Your task to perform on an android device: Open calendar and show me the third week of next month Image 0: 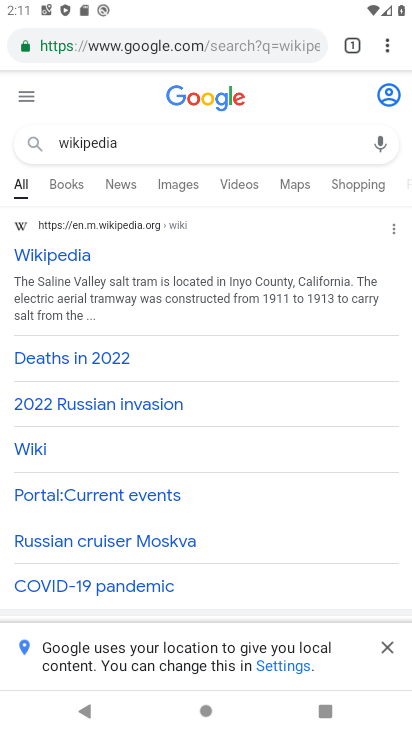
Step 0: press home button
Your task to perform on an android device: Open calendar and show me the third week of next month Image 1: 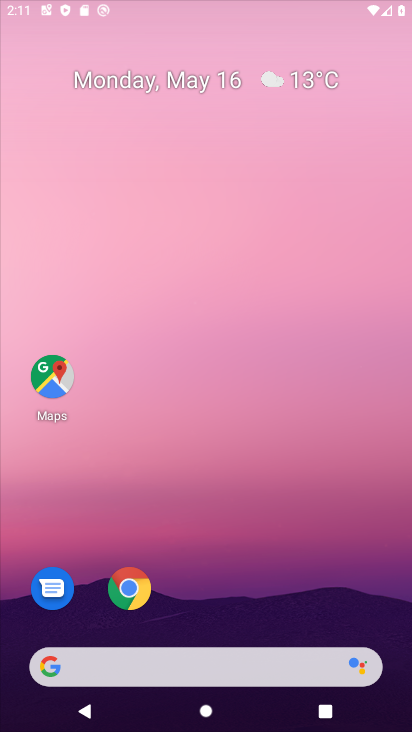
Step 1: drag from (169, 614) to (224, 53)
Your task to perform on an android device: Open calendar and show me the third week of next month Image 2: 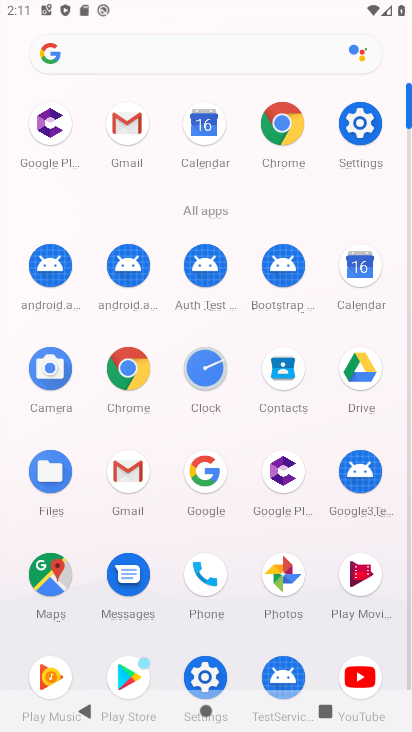
Step 2: click (351, 270)
Your task to perform on an android device: Open calendar and show me the third week of next month Image 3: 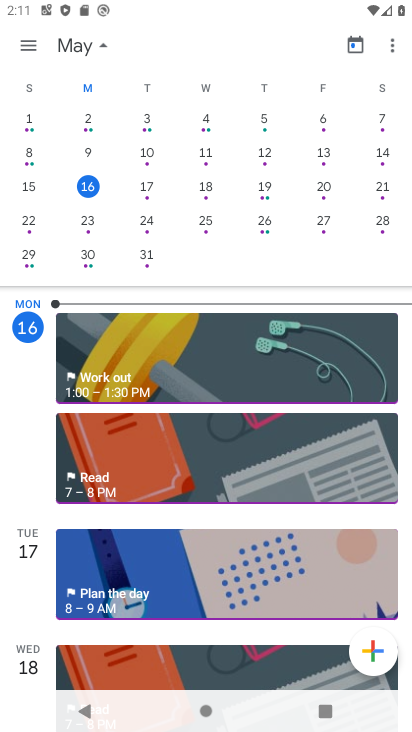
Step 3: drag from (364, 187) to (94, 165)
Your task to perform on an android device: Open calendar and show me the third week of next month Image 4: 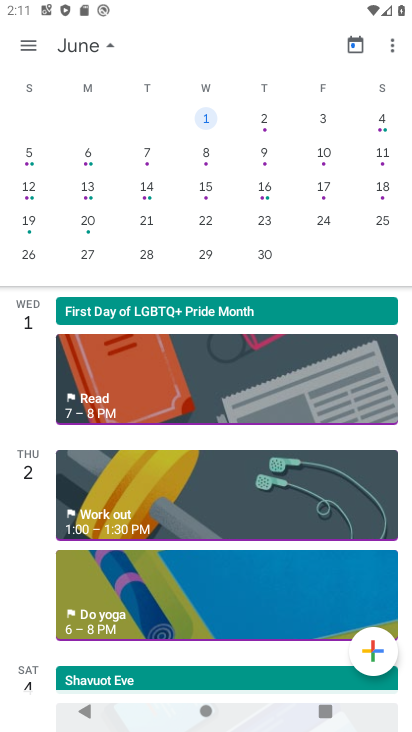
Step 4: click (323, 184)
Your task to perform on an android device: Open calendar and show me the third week of next month Image 5: 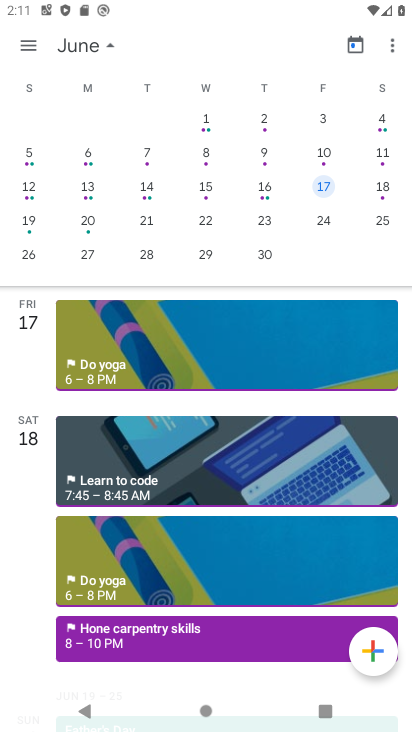
Step 5: task complete